Your task to perform on an android device: find which apps use the phone's location Image 0: 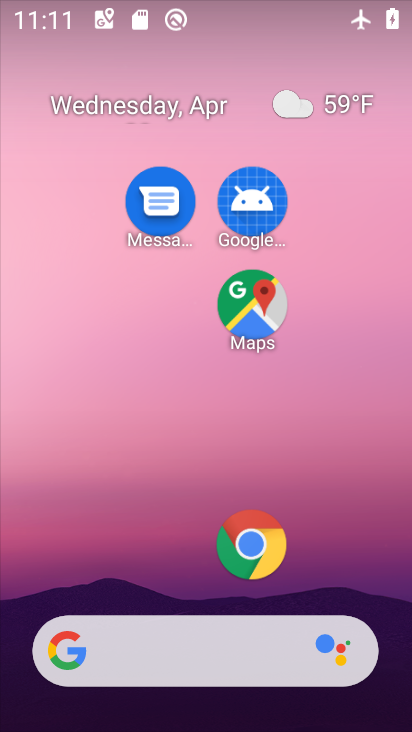
Step 0: drag from (159, 496) to (186, 132)
Your task to perform on an android device: find which apps use the phone's location Image 1: 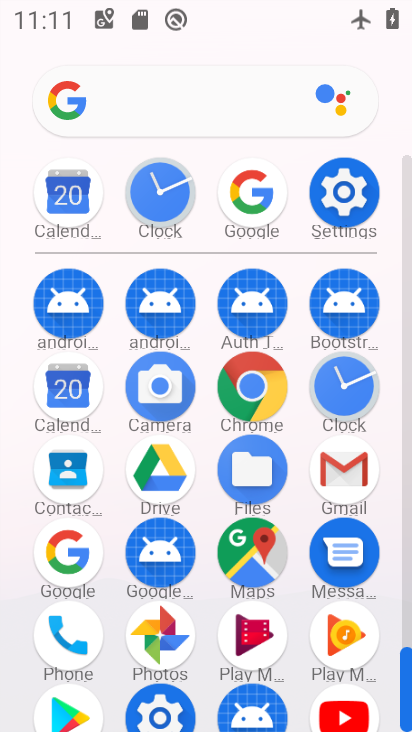
Step 1: click (355, 204)
Your task to perform on an android device: find which apps use the phone's location Image 2: 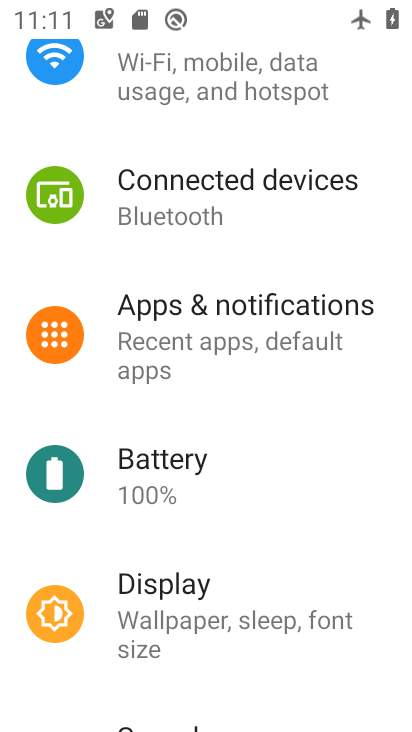
Step 2: drag from (258, 660) to (245, 185)
Your task to perform on an android device: find which apps use the phone's location Image 3: 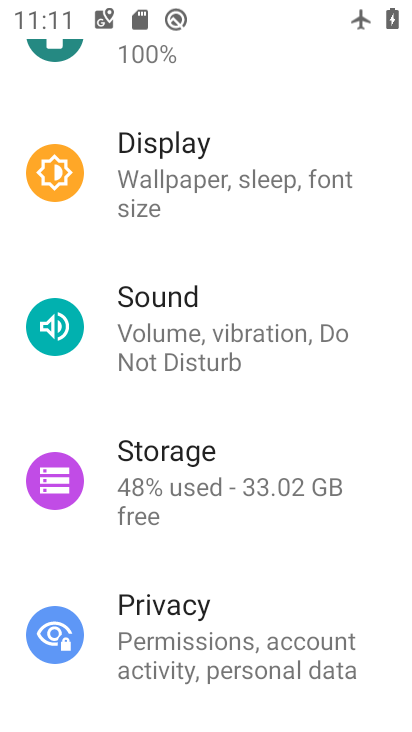
Step 3: drag from (221, 628) to (246, 255)
Your task to perform on an android device: find which apps use the phone's location Image 4: 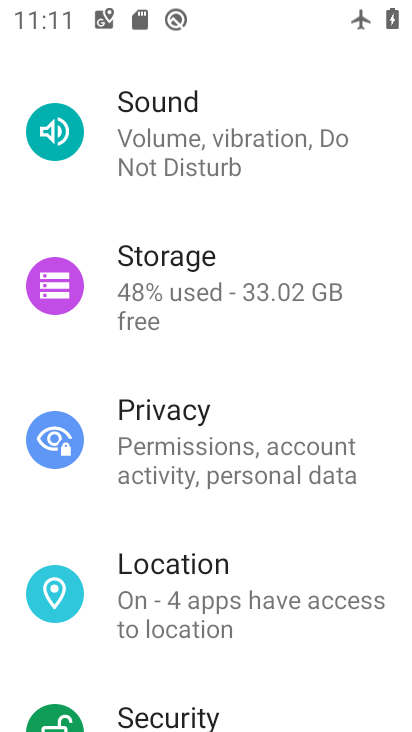
Step 4: click (189, 586)
Your task to perform on an android device: find which apps use the phone's location Image 5: 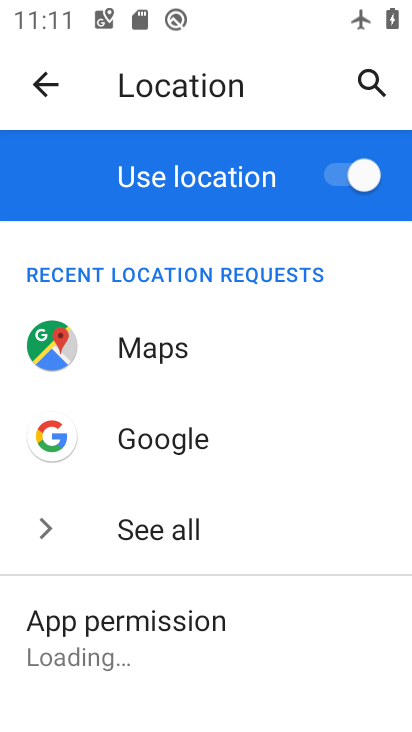
Step 5: click (173, 610)
Your task to perform on an android device: find which apps use the phone's location Image 6: 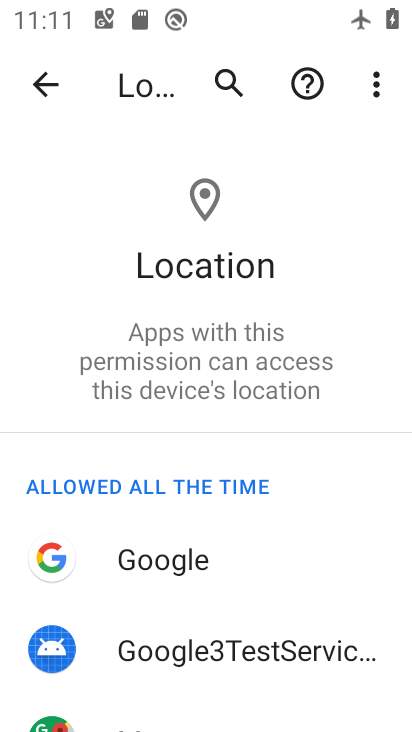
Step 6: task complete